Your task to perform on an android device: toggle location history Image 0: 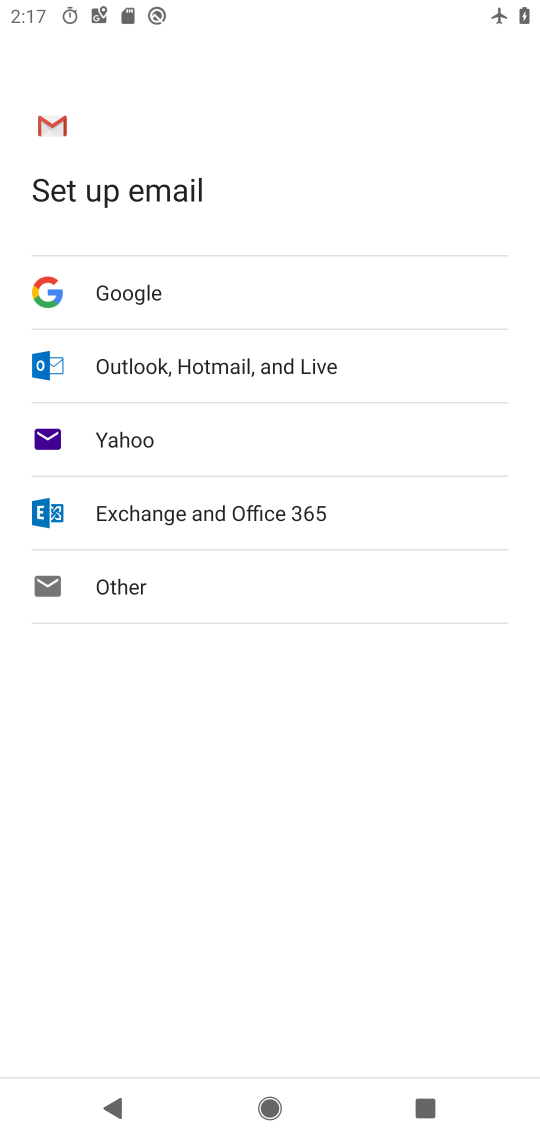
Step 0: press home button
Your task to perform on an android device: toggle location history Image 1: 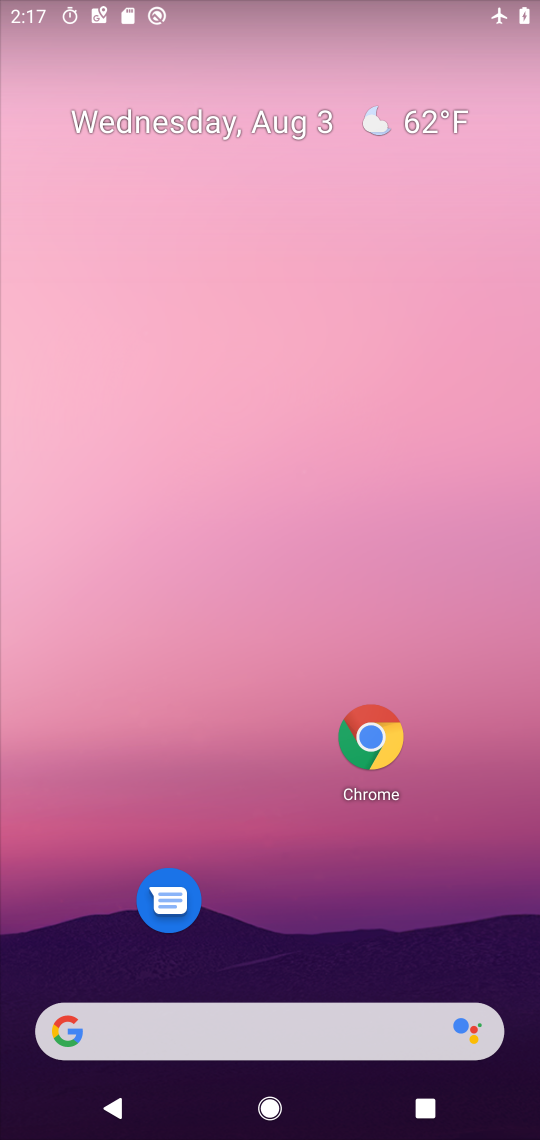
Step 1: drag from (284, 676) to (353, 105)
Your task to perform on an android device: toggle location history Image 2: 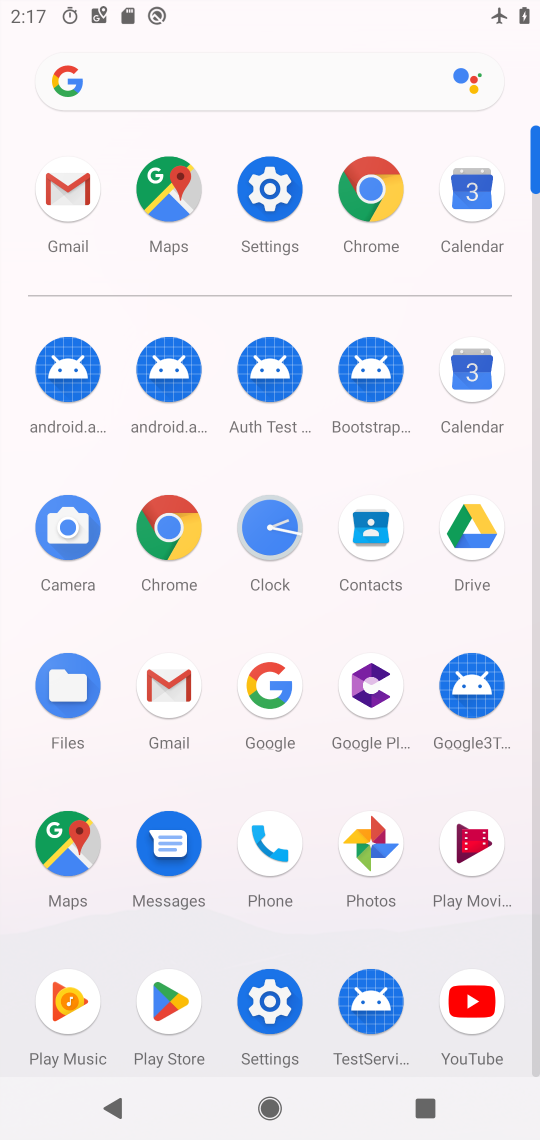
Step 2: click (279, 194)
Your task to perform on an android device: toggle location history Image 3: 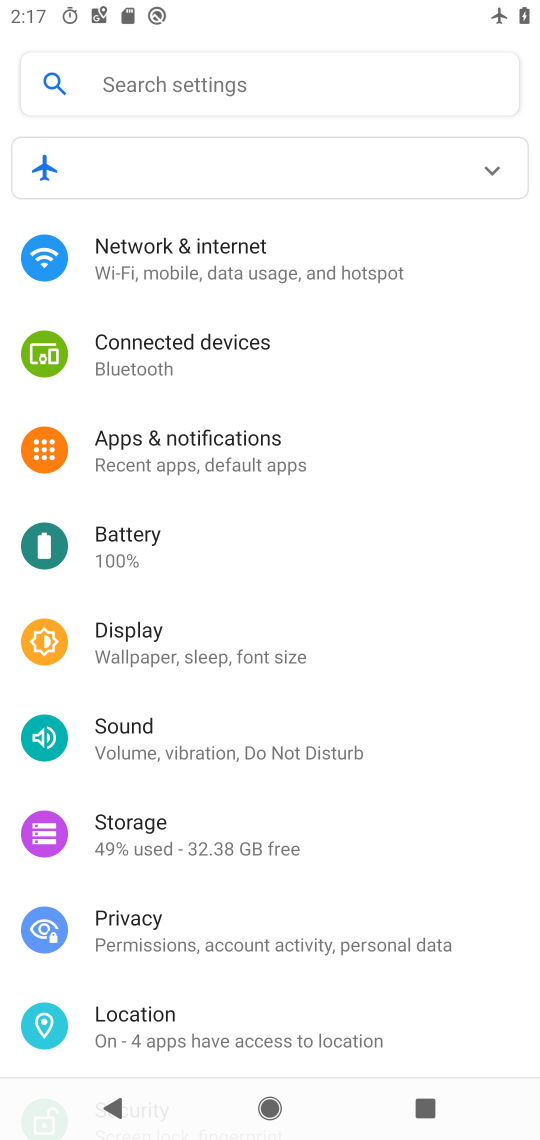
Step 3: drag from (384, 984) to (425, 360)
Your task to perform on an android device: toggle location history Image 4: 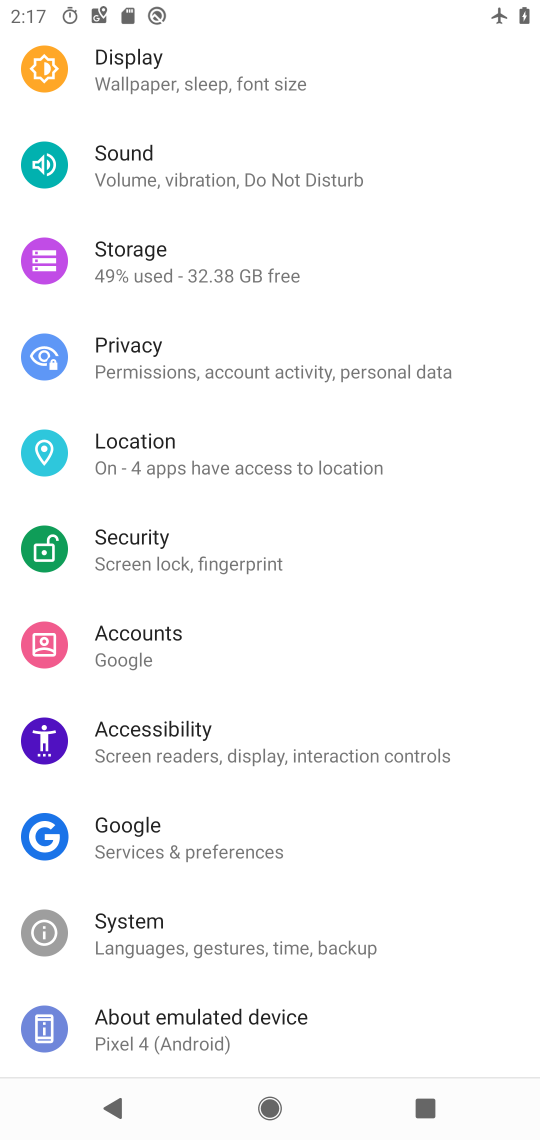
Step 4: click (166, 445)
Your task to perform on an android device: toggle location history Image 5: 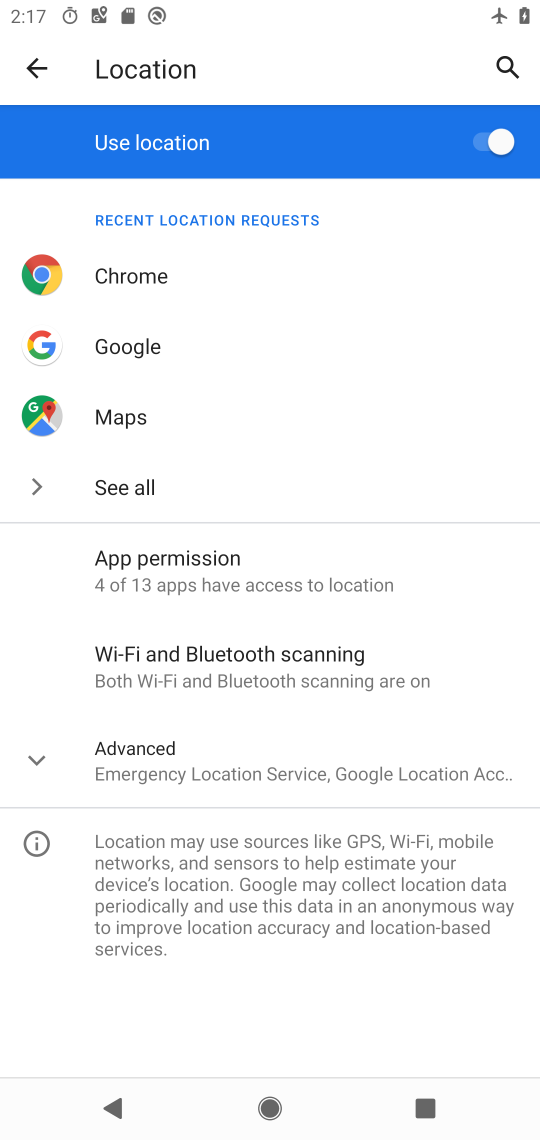
Step 5: click (231, 765)
Your task to perform on an android device: toggle location history Image 6: 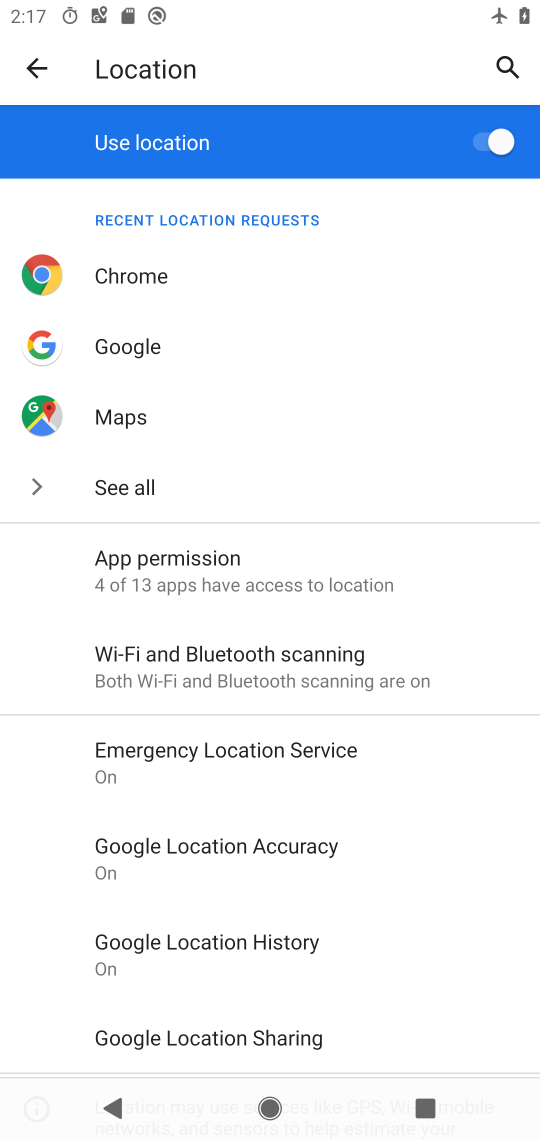
Step 6: click (278, 934)
Your task to perform on an android device: toggle location history Image 7: 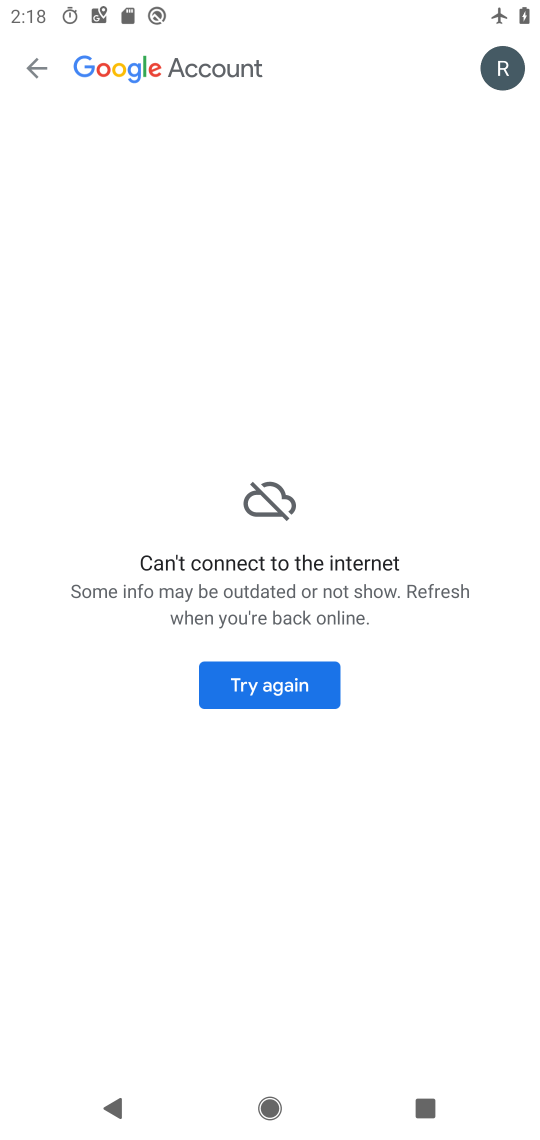
Step 7: task complete